Your task to perform on an android device: Search for sushi restaurants on Maps Image 0: 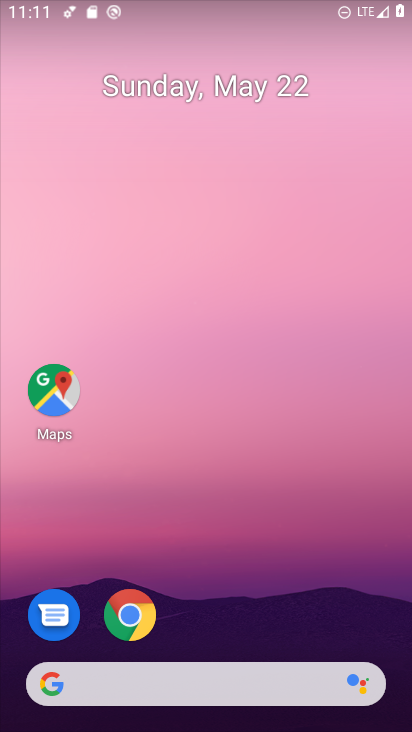
Step 0: click (56, 404)
Your task to perform on an android device: Search for sushi restaurants on Maps Image 1: 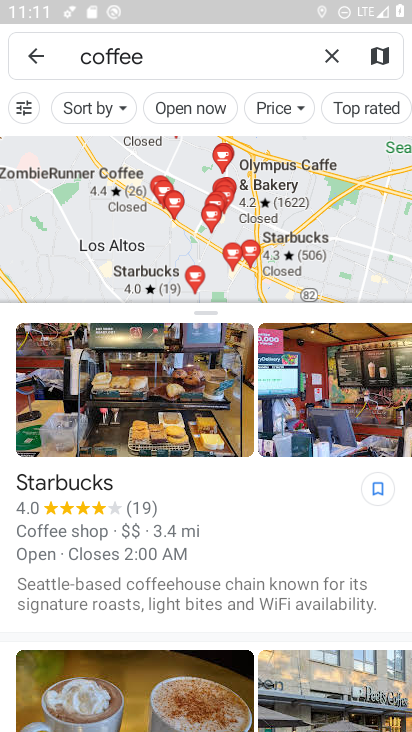
Step 1: click (251, 49)
Your task to perform on an android device: Search for sushi restaurants on Maps Image 2: 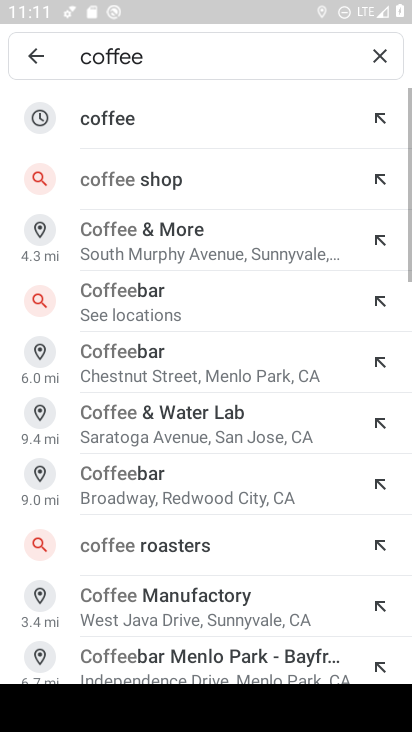
Step 2: click (381, 54)
Your task to perform on an android device: Search for sushi restaurants on Maps Image 3: 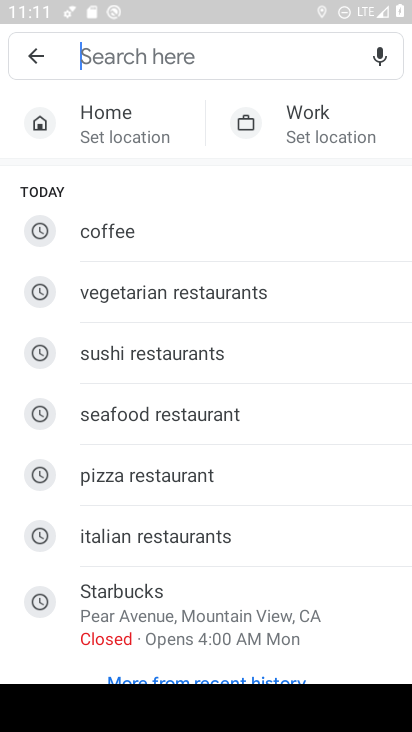
Step 3: click (201, 361)
Your task to perform on an android device: Search for sushi restaurants on Maps Image 4: 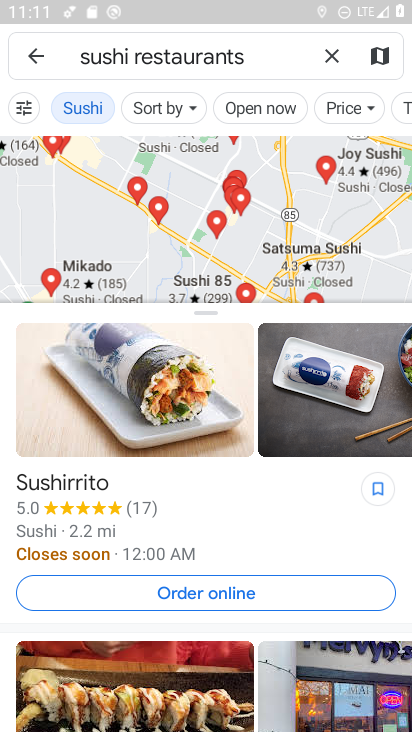
Step 4: task complete